Your task to perform on an android device: open chrome privacy settings Image 0: 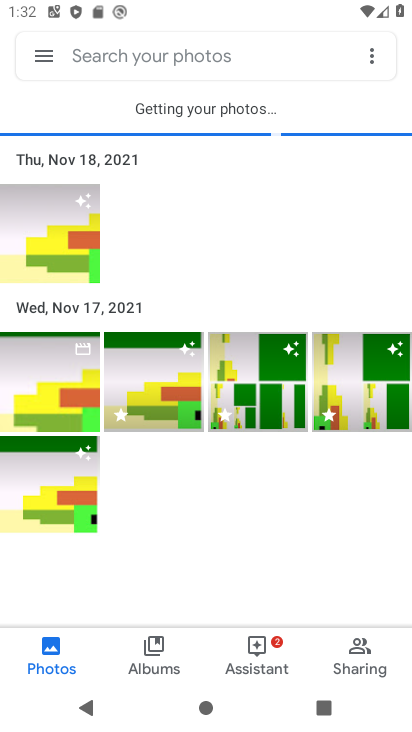
Step 0: press home button
Your task to perform on an android device: open chrome privacy settings Image 1: 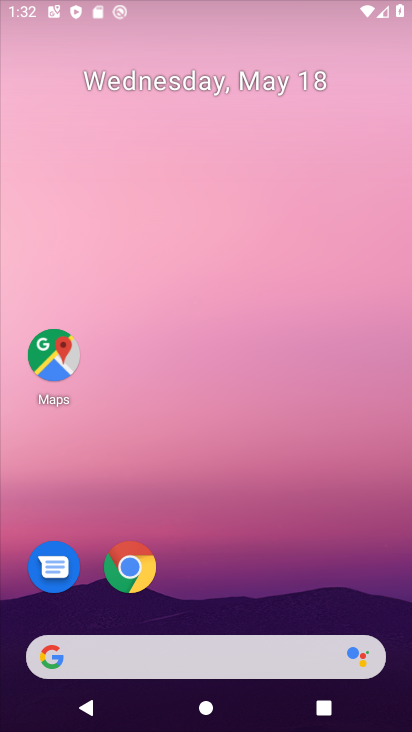
Step 1: drag from (334, 535) to (337, 74)
Your task to perform on an android device: open chrome privacy settings Image 2: 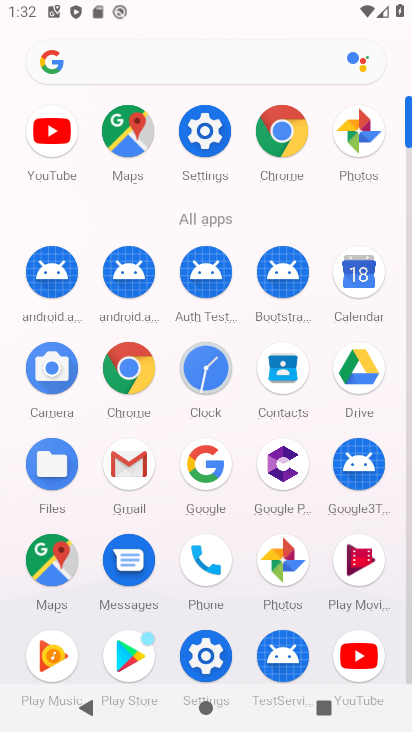
Step 2: click (297, 111)
Your task to perform on an android device: open chrome privacy settings Image 3: 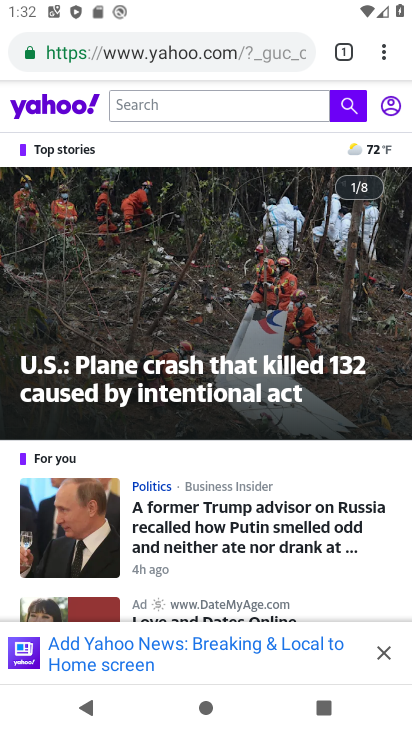
Step 3: drag from (379, 40) to (255, 614)
Your task to perform on an android device: open chrome privacy settings Image 4: 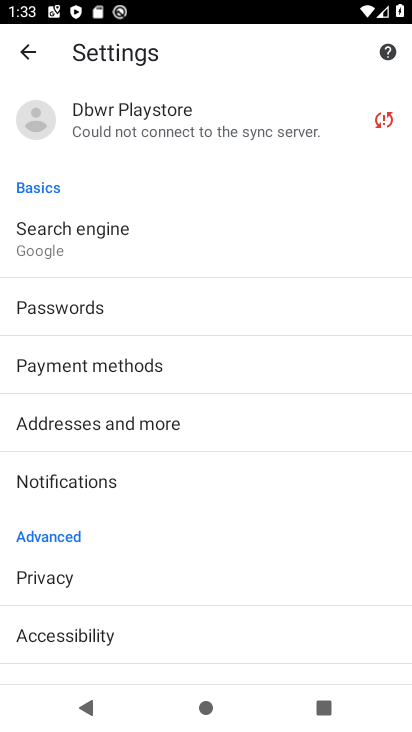
Step 4: drag from (168, 608) to (183, 485)
Your task to perform on an android device: open chrome privacy settings Image 5: 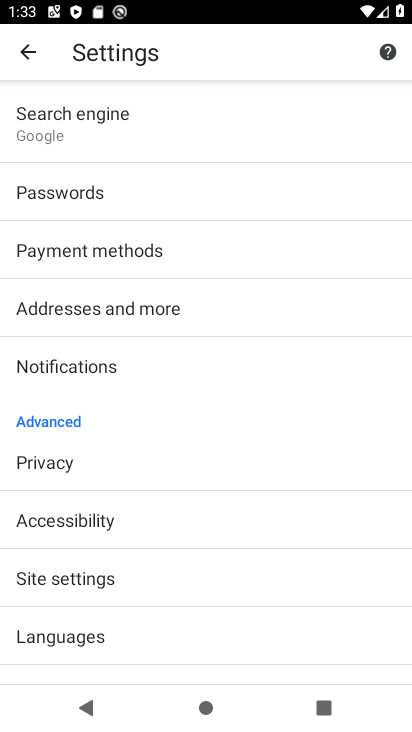
Step 5: click (76, 451)
Your task to perform on an android device: open chrome privacy settings Image 6: 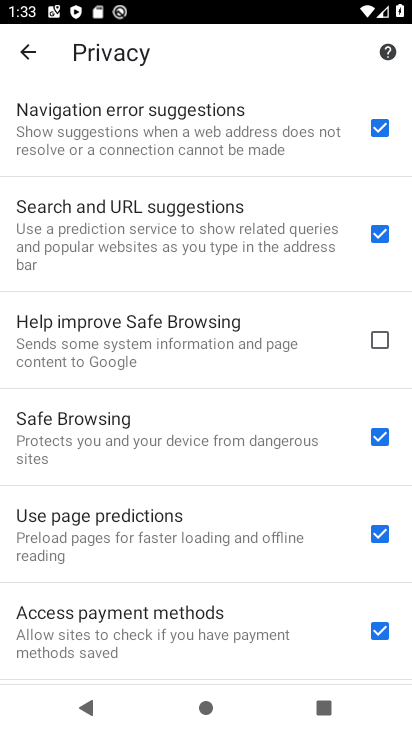
Step 6: task complete